Your task to perform on an android device: Go to sound settings Image 0: 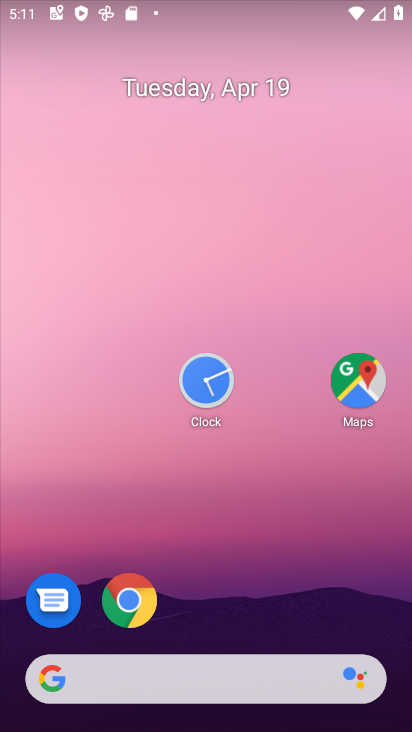
Step 0: drag from (148, 411) to (39, 29)
Your task to perform on an android device: Go to sound settings Image 1: 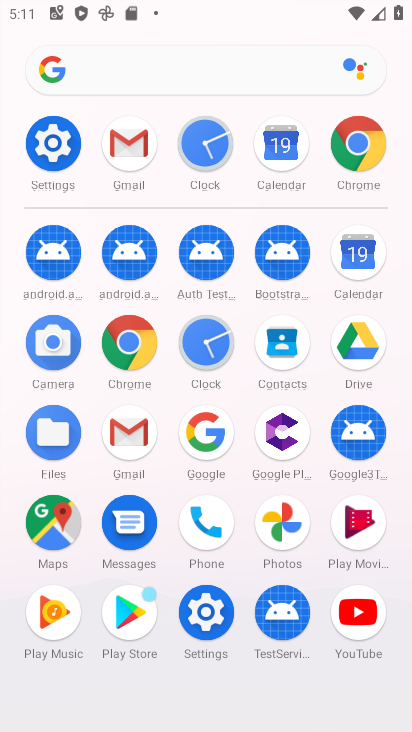
Step 1: click (42, 150)
Your task to perform on an android device: Go to sound settings Image 2: 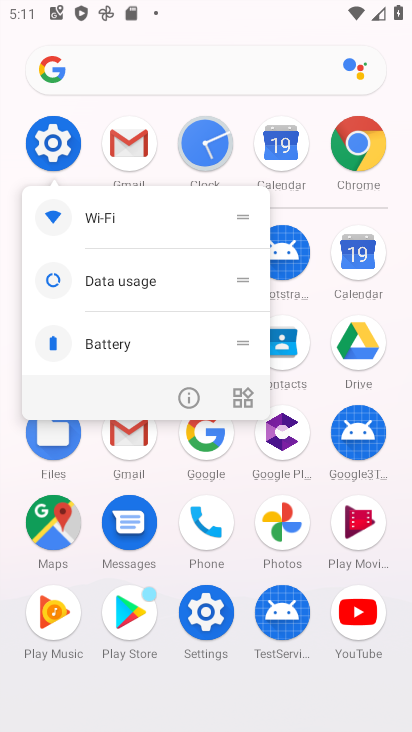
Step 2: click (65, 146)
Your task to perform on an android device: Go to sound settings Image 3: 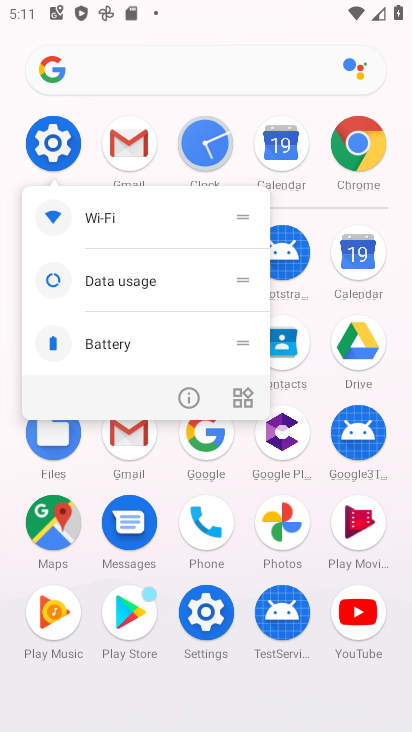
Step 3: click (56, 161)
Your task to perform on an android device: Go to sound settings Image 4: 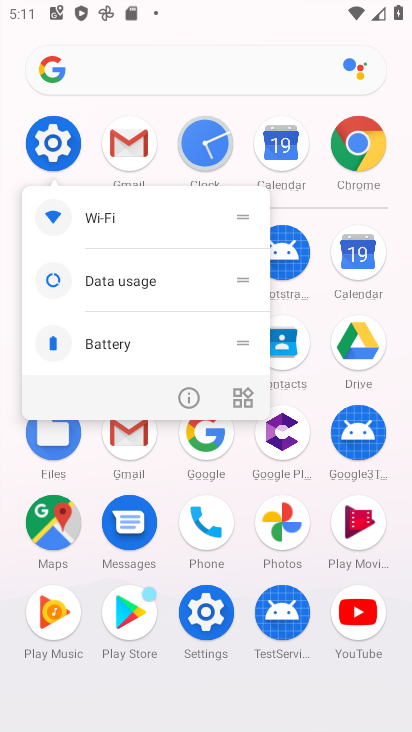
Step 4: click (56, 158)
Your task to perform on an android device: Go to sound settings Image 5: 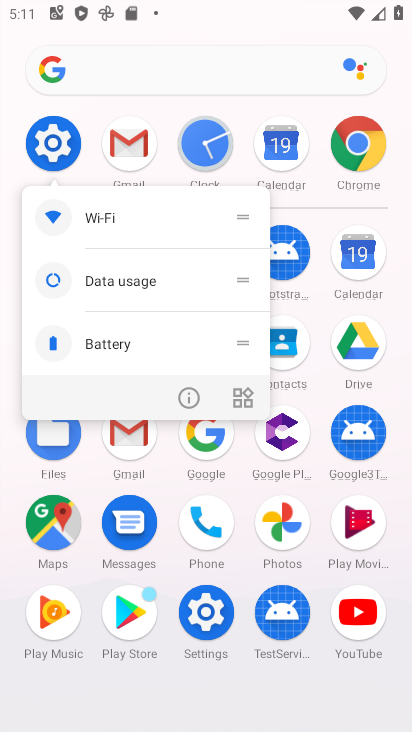
Step 5: click (55, 141)
Your task to perform on an android device: Go to sound settings Image 6: 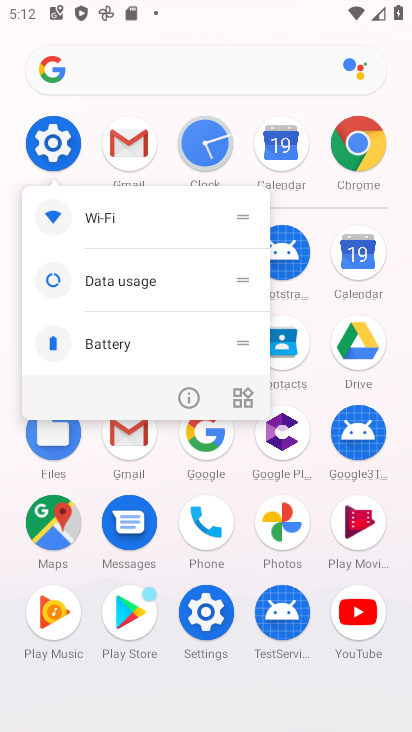
Step 6: click (55, 154)
Your task to perform on an android device: Go to sound settings Image 7: 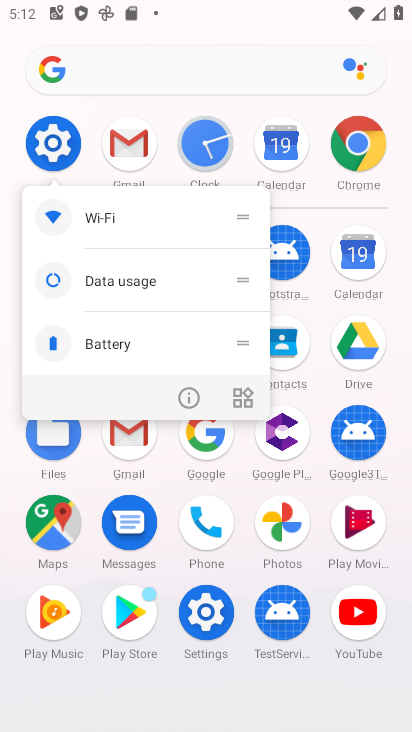
Step 7: click (55, 154)
Your task to perform on an android device: Go to sound settings Image 8: 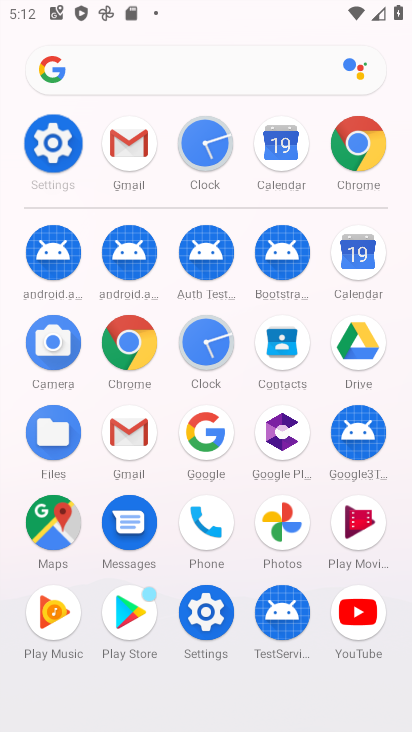
Step 8: click (57, 154)
Your task to perform on an android device: Go to sound settings Image 9: 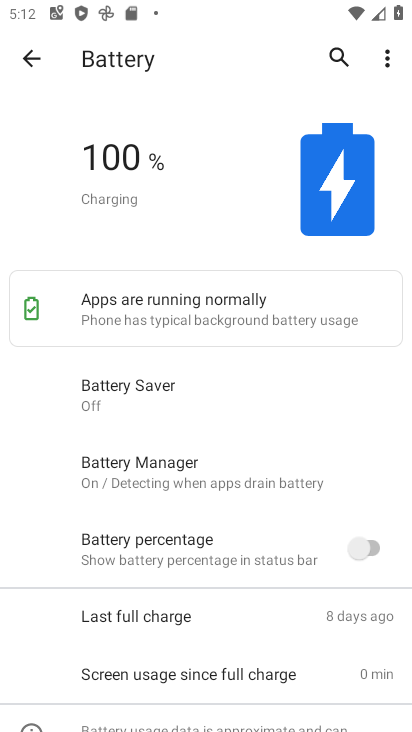
Step 9: click (27, 58)
Your task to perform on an android device: Go to sound settings Image 10: 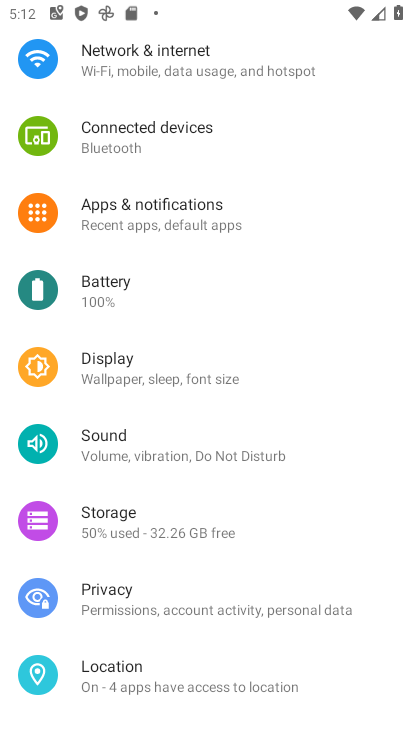
Step 10: drag from (223, 570) to (206, 246)
Your task to perform on an android device: Go to sound settings Image 11: 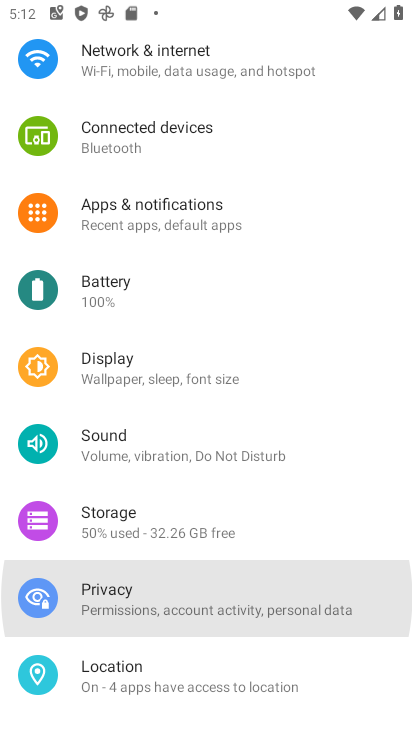
Step 11: drag from (208, 345) to (190, 170)
Your task to perform on an android device: Go to sound settings Image 12: 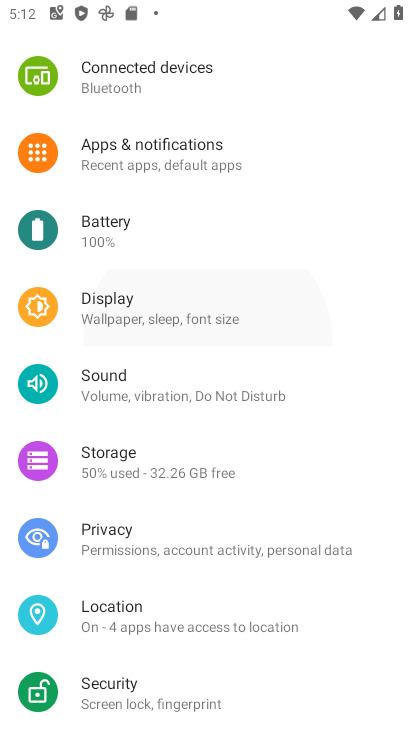
Step 12: drag from (174, 521) to (128, 168)
Your task to perform on an android device: Go to sound settings Image 13: 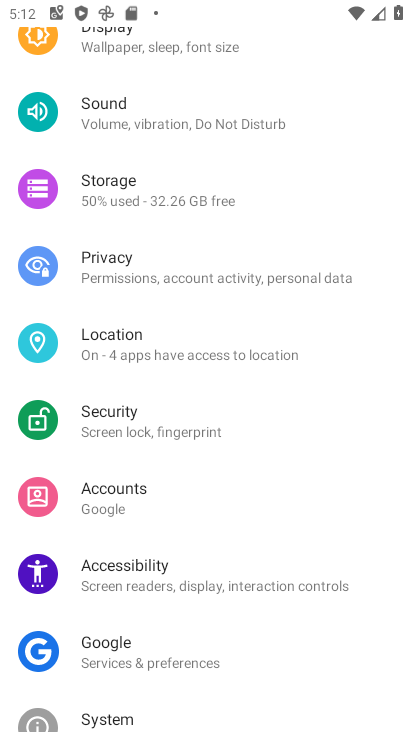
Step 13: drag from (149, 598) to (153, 232)
Your task to perform on an android device: Go to sound settings Image 14: 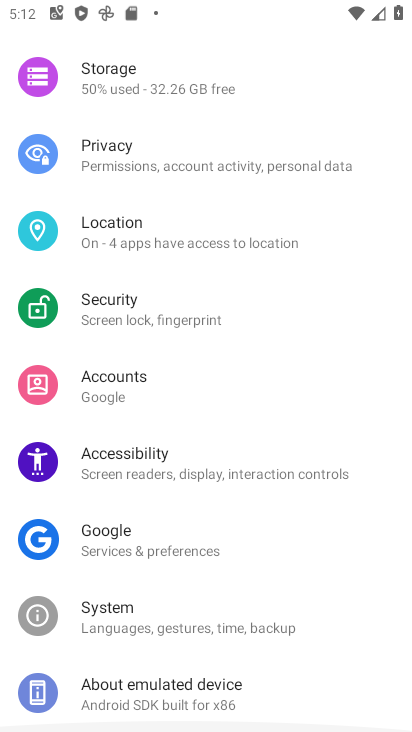
Step 14: click (202, 551)
Your task to perform on an android device: Go to sound settings Image 15: 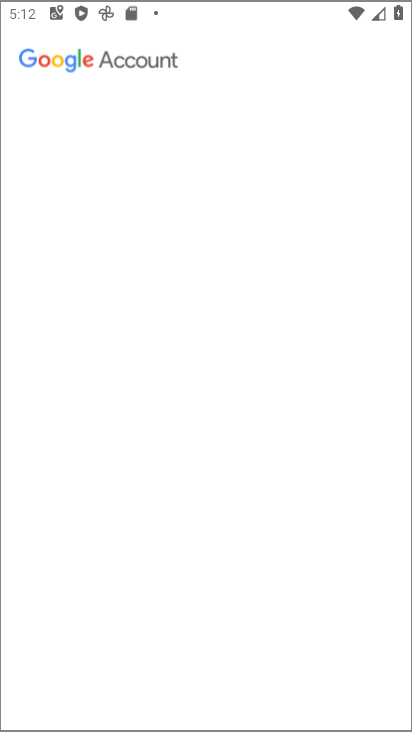
Step 15: drag from (232, 298) to (258, 397)
Your task to perform on an android device: Go to sound settings Image 16: 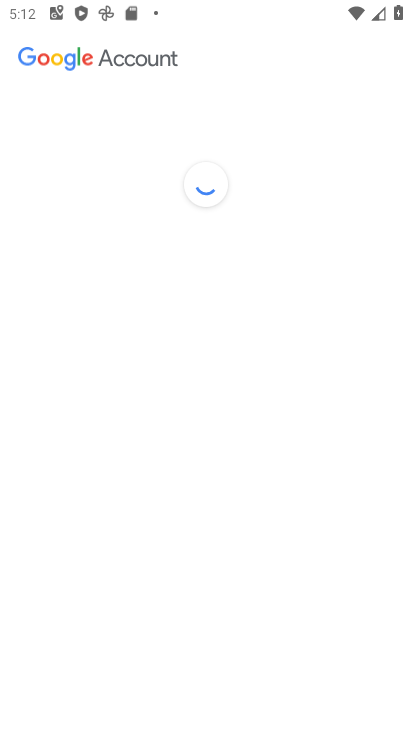
Step 16: click (274, 499)
Your task to perform on an android device: Go to sound settings Image 17: 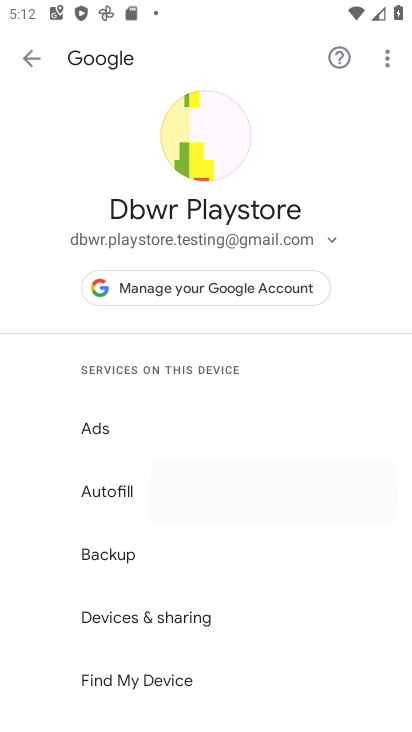
Step 17: drag from (168, 492) to (209, 587)
Your task to perform on an android device: Go to sound settings Image 18: 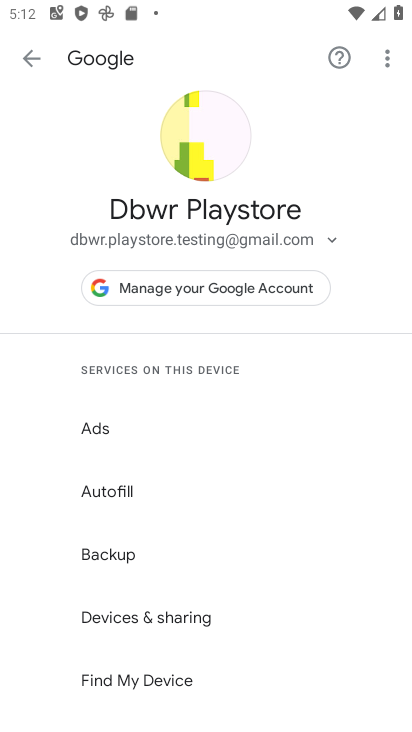
Step 18: press back button
Your task to perform on an android device: Go to sound settings Image 19: 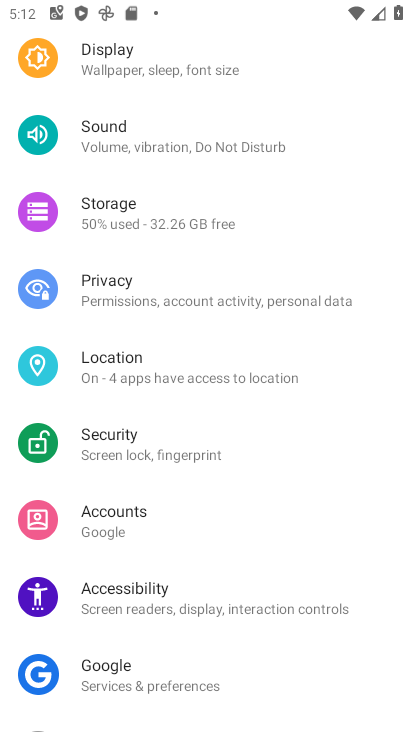
Step 19: drag from (180, 281) to (233, 446)
Your task to perform on an android device: Go to sound settings Image 20: 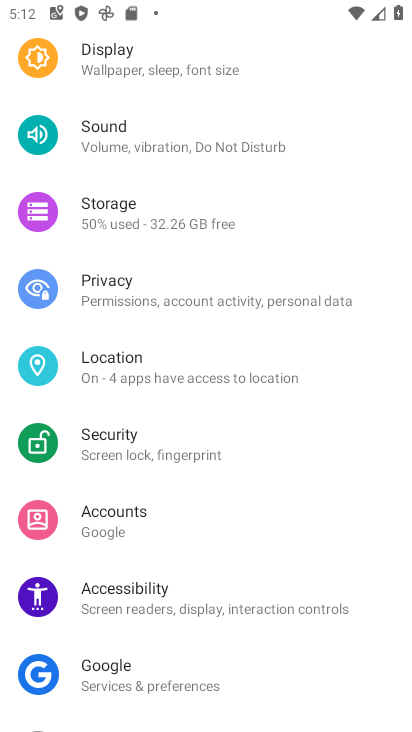
Step 20: drag from (204, 429) to (165, 537)
Your task to perform on an android device: Go to sound settings Image 21: 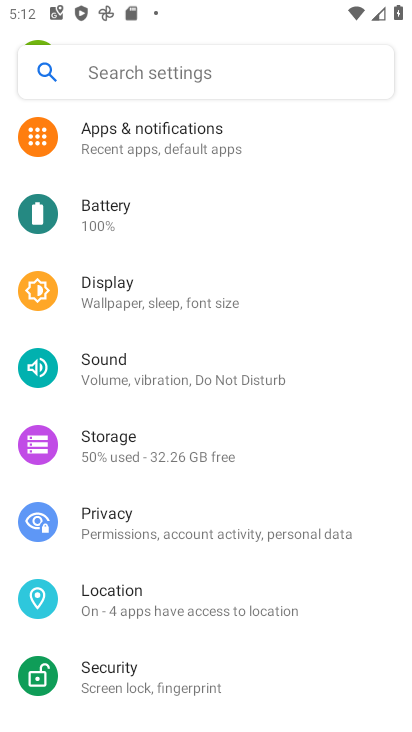
Step 21: click (115, 372)
Your task to perform on an android device: Go to sound settings Image 22: 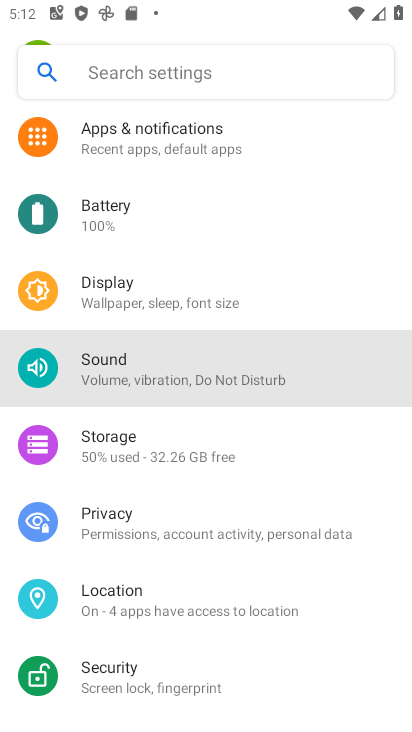
Step 22: click (114, 373)
Your task to perform on an android device: Go to sound settings Image 23: 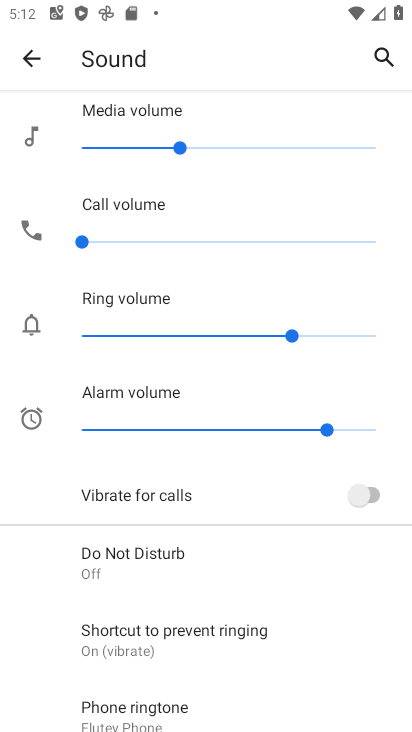
Step 23: task complete